Your task to perform on an android device: Open Wikipedia Image 0: 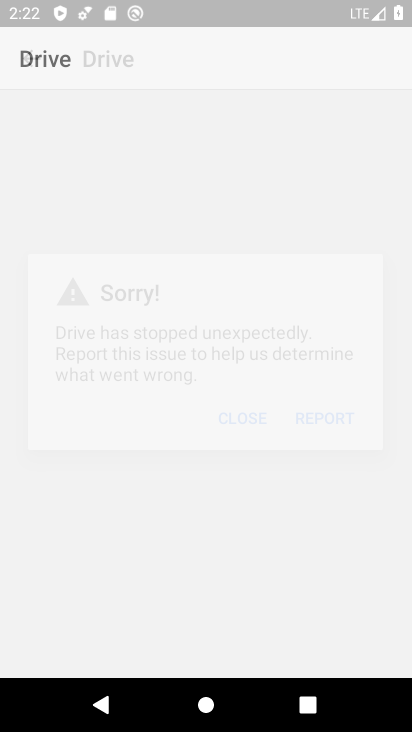
Step 0: drag from (291, 568) to (250, 156)
Your task to perform on an android device: Open Wikipedia Image 1: 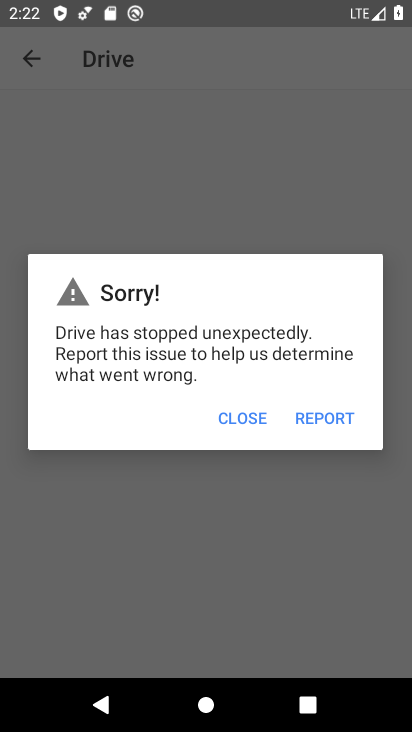
Step 1: press home button
Your task to perform on an android device: Open Wikipedia Image 2: 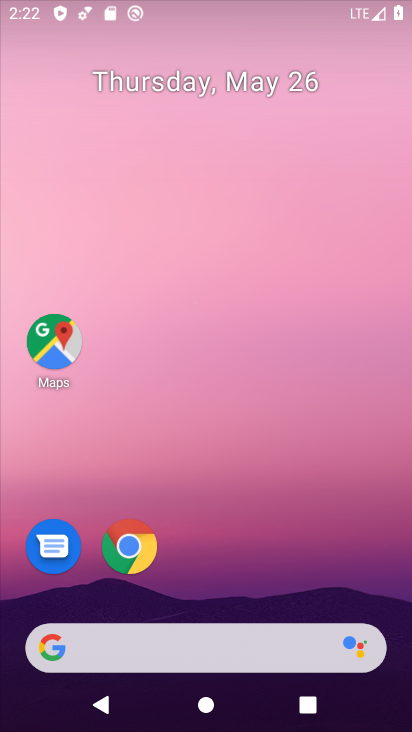
Step 2: click (136, 553)
Your task to perform on an android device: Open Wikipedia Image 3: 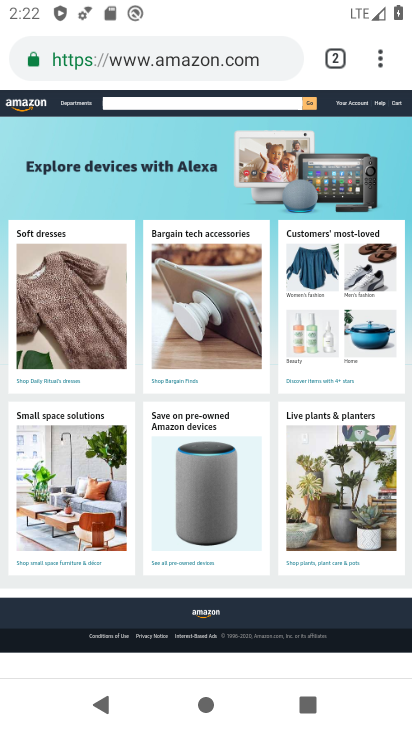
Step 3: click (334, 50)
Your task to perform on an android device: Open Wikipedia Image 4: 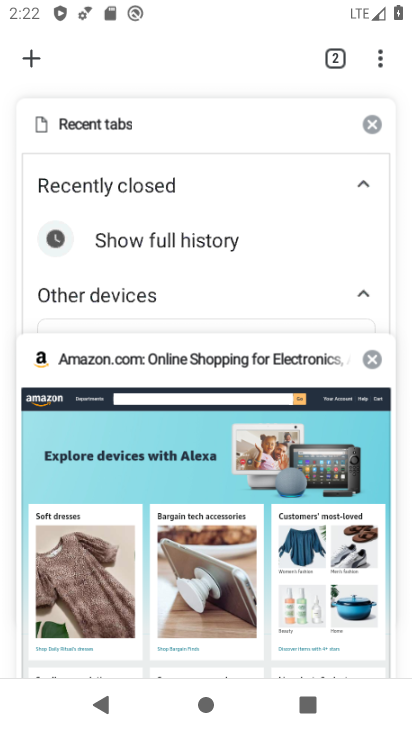
Step 4: click (38, 59)
Your task to perform on an android device: Open Wikipedia Image 5: 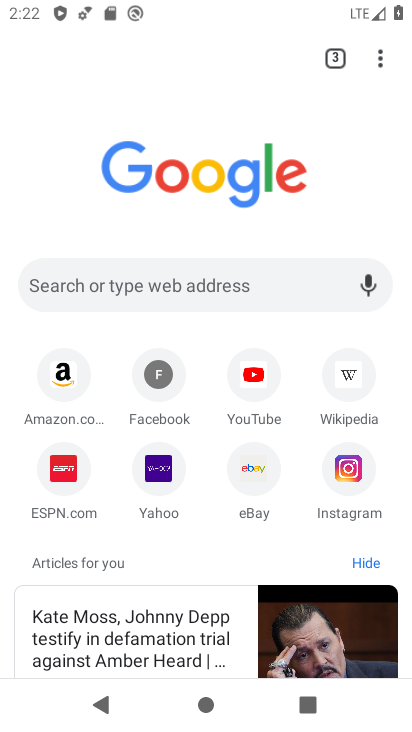
Step 5: click (347, 385)
Your task to perform on an android device: Open Wikipedia Image 6: 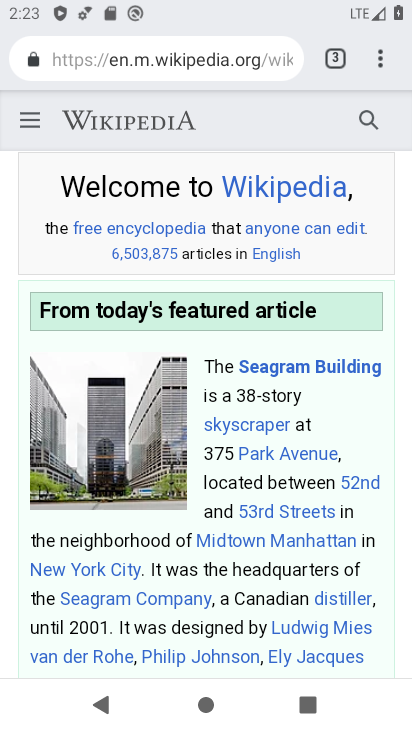
Step 6: task complete